Your task to perform on an android device: open app "Google Maps" Image 0: 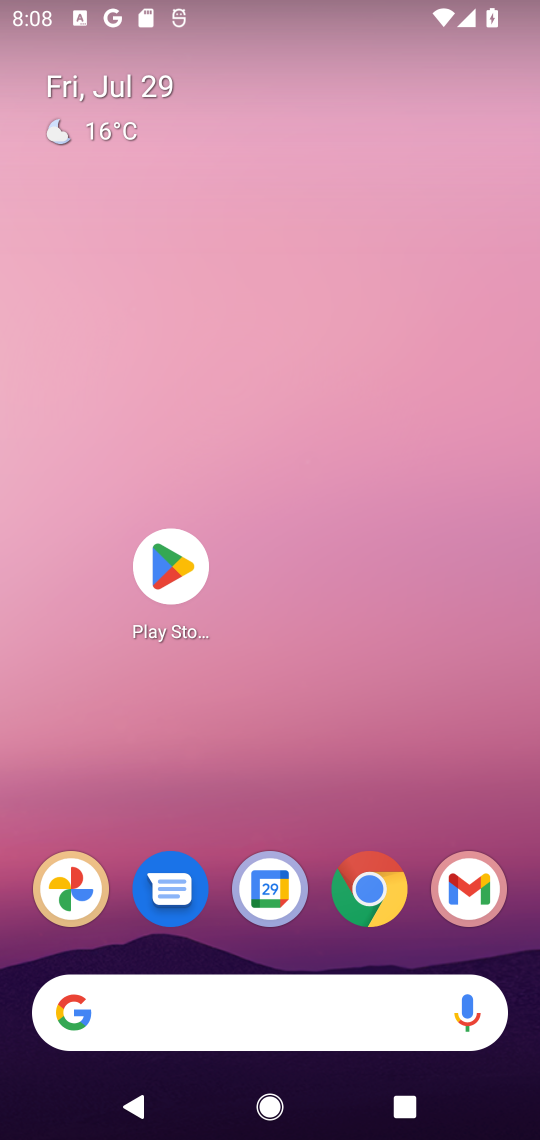
Step 0: press home button
Your task to perform on an android device: open app "Google Maps" Image 1: 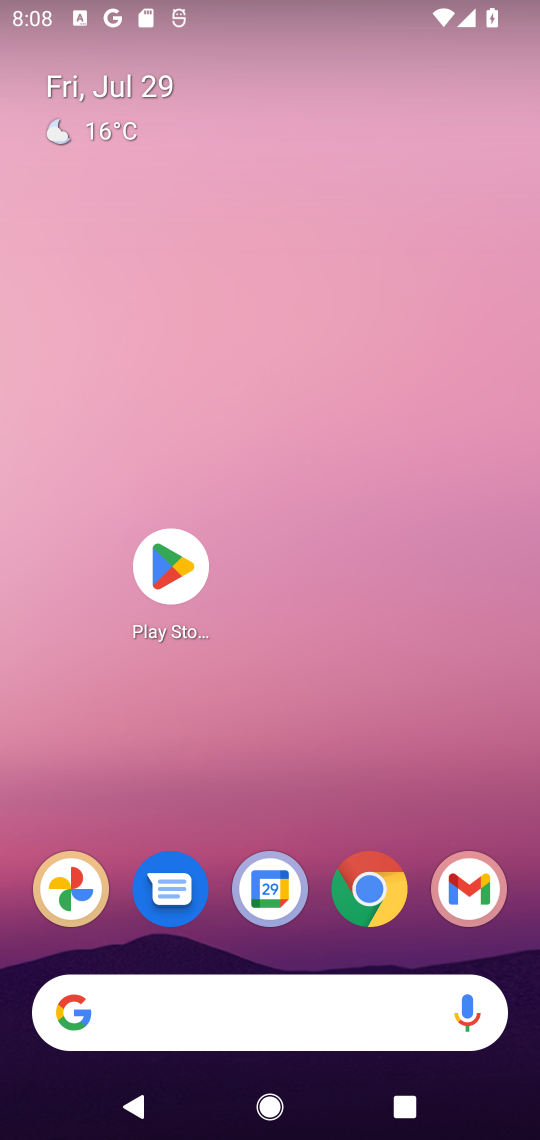
Step 1: drag from (297, 863) to (355, 214)
Your task to perform on an android device: open app "Google Maps" Image 2: 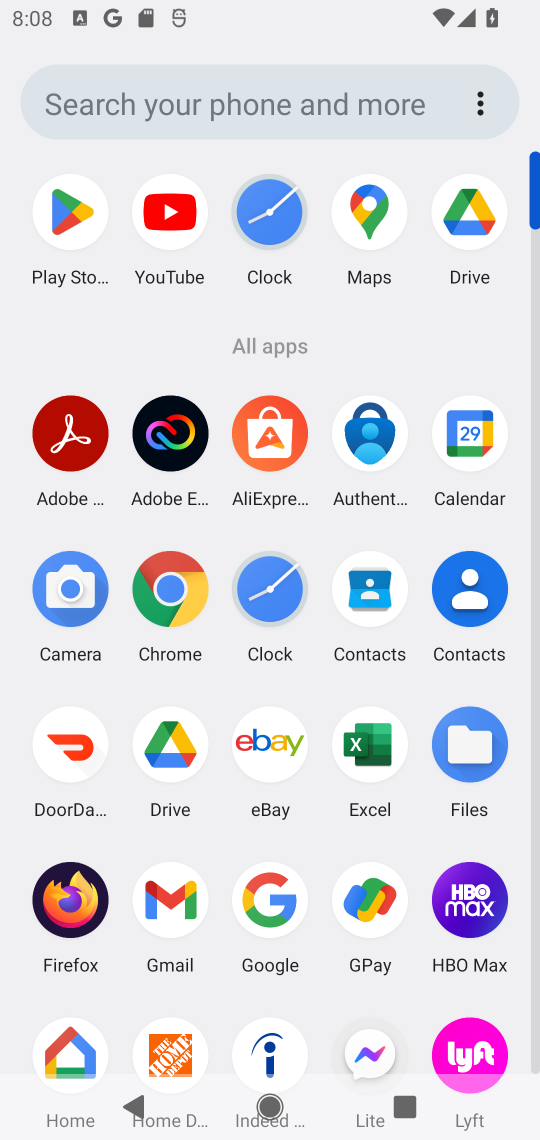
Step 2: drag from (329, 800) to (357, 352)
Your task to perform on an android device: open app "Google Maps" Image 3: 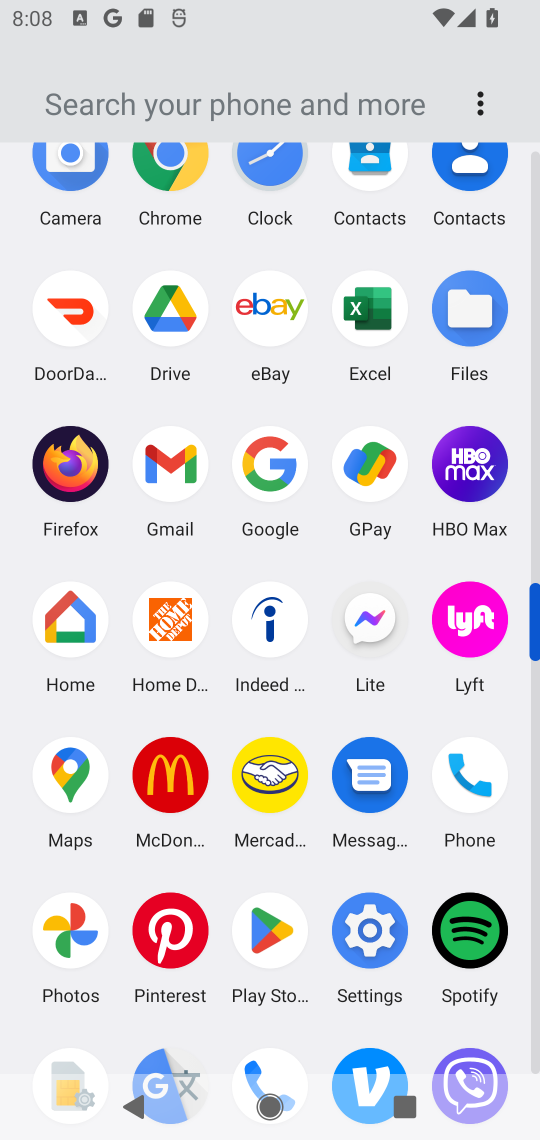
Step 3: drag from (309, 807) to (389, 230)
Your task to perform on an android device: open app "Google Maps" Image 4: 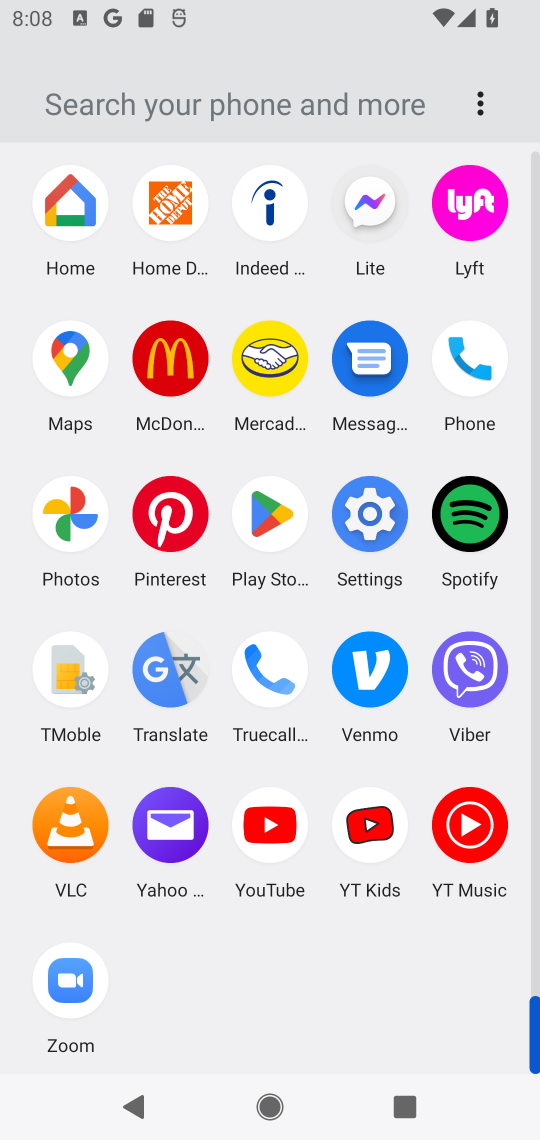
Step 4: drag from (315, 223) to (317, 859)
Your task to perform on an android device: open app "Google Maps" Image 5: 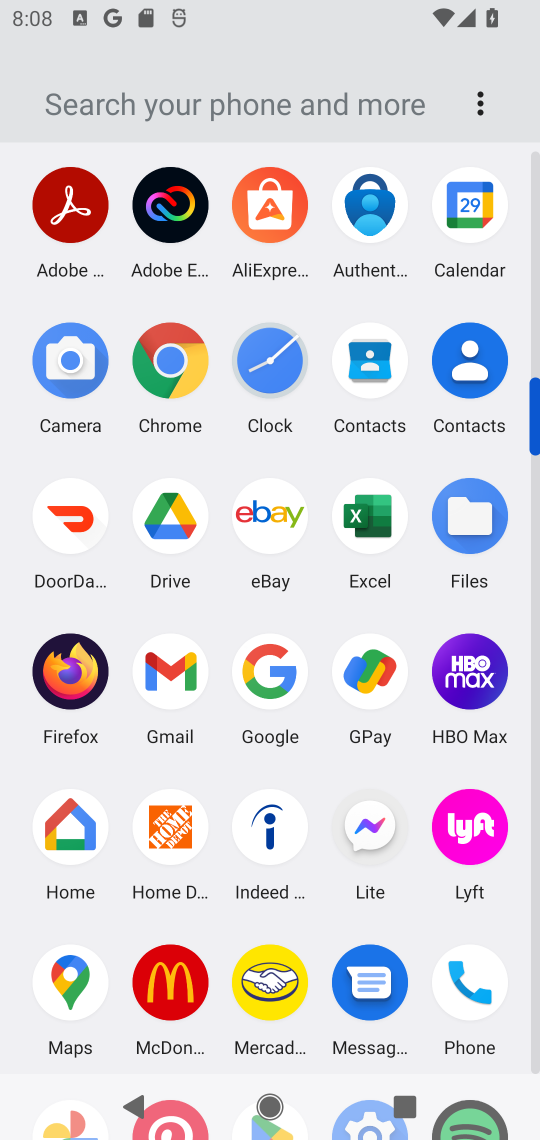
Step 5: click (71, 968)
Your task to perform on an android device: open app "Google Maps" Image 6: 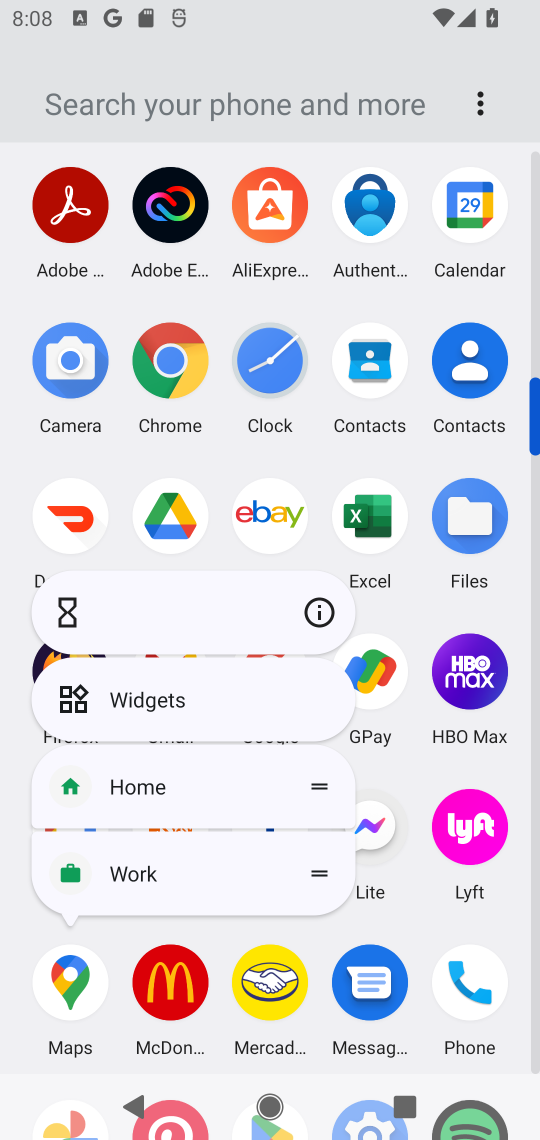
Step 6: click (67, 983)
Your task to perform on an android device: open app "Google Maps" Image 7: 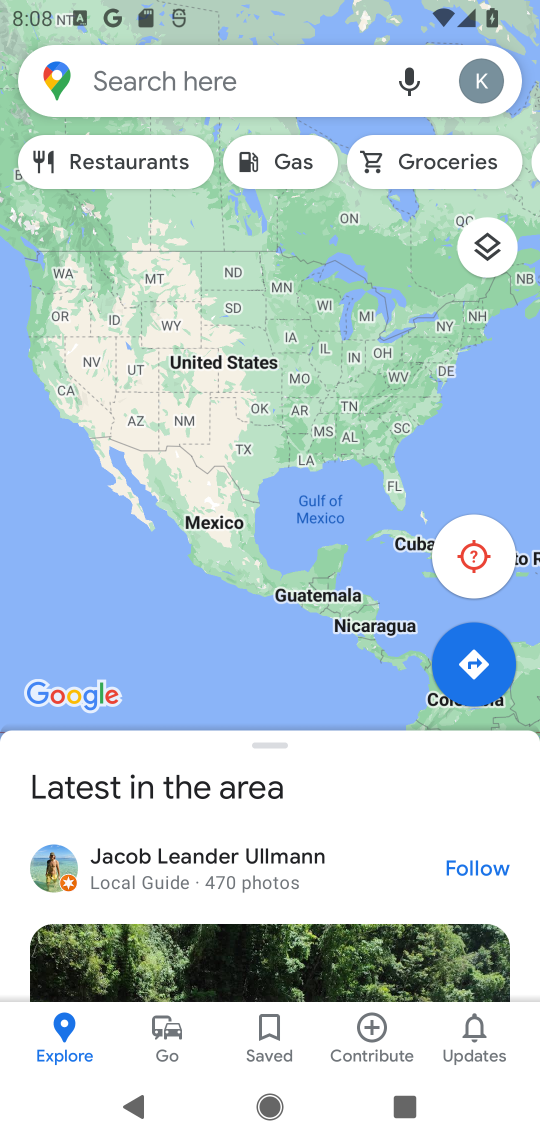
Step 7: task complete